Your task to perform on an android device: choose inbox layout in the gmail app Image 0: 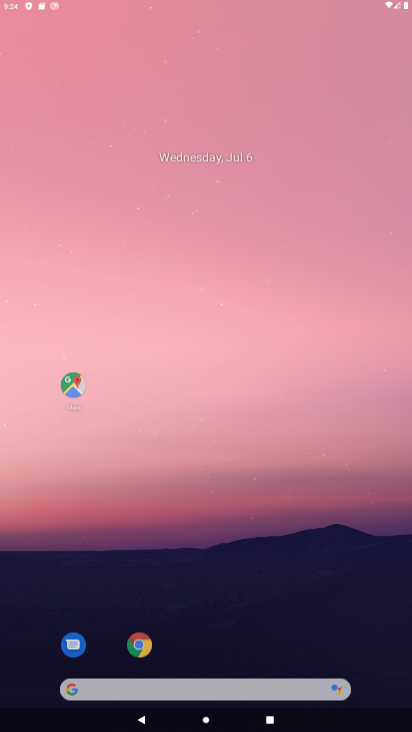
Step 0: press home button
Your task to perform on an android device: choose inbox layout in the gmail app Image 1: 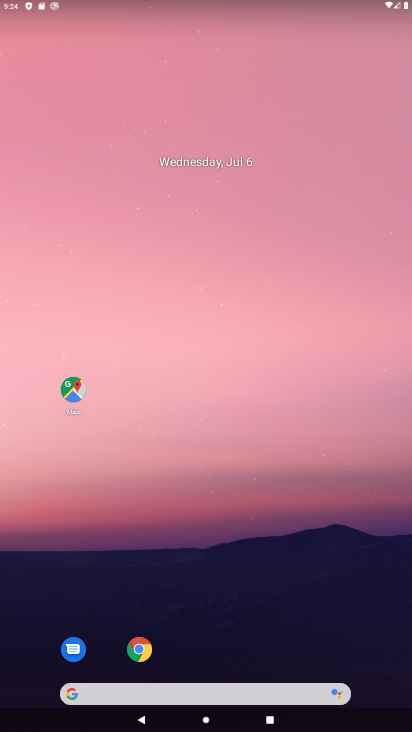
Step 1: drag from (224, 664) to (255, 60)
Your task to perform on an android device: choose inbox layout in the gmail app Image 2: 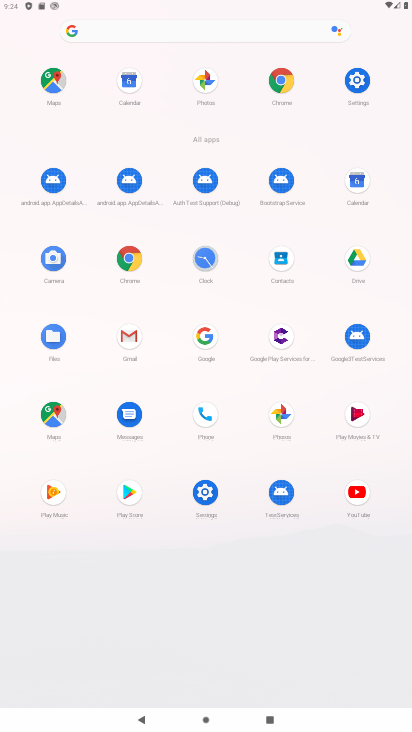
Step 2: click (124, 330)
Your task to perform on an android device: choose inbox layout in the gmail app Image 3: 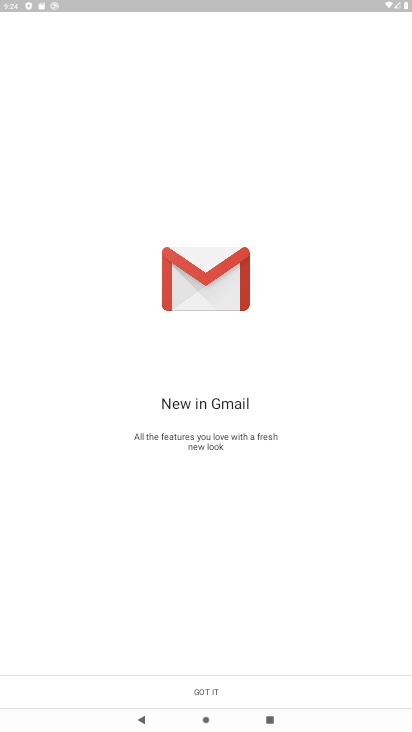
Step 3: click (206, 686)
Your task to perform on an android device: choose inbox layout in the gmail app Image 4: 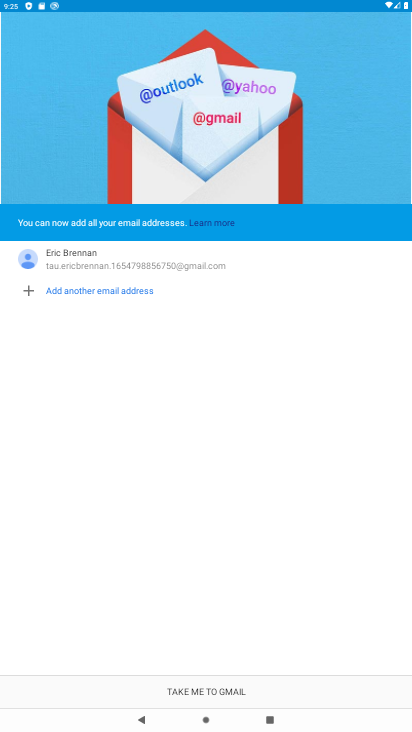
Step 4: click (204, 687)
Your task to perform on an android device: choose inbox layout in the gmail app Image 5: 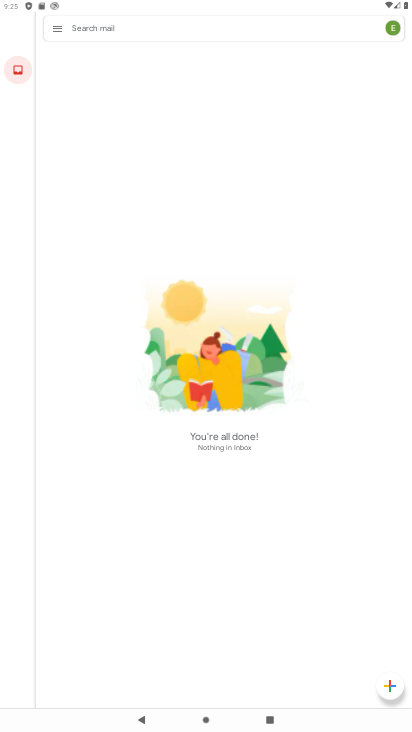
Step 5: click (56, 23)
Your task to perform on an android device: choose inbox layout in the gmail app Image 6: 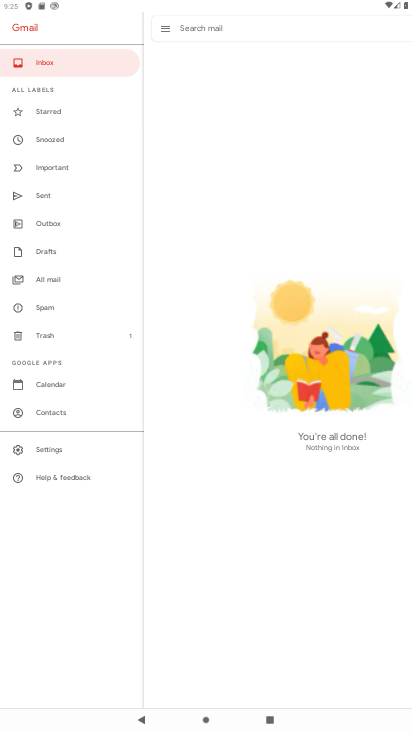
Step 6: click (69, 449)
Your task to perform on an android device: choose inbox layout in the gmail app Image 7: 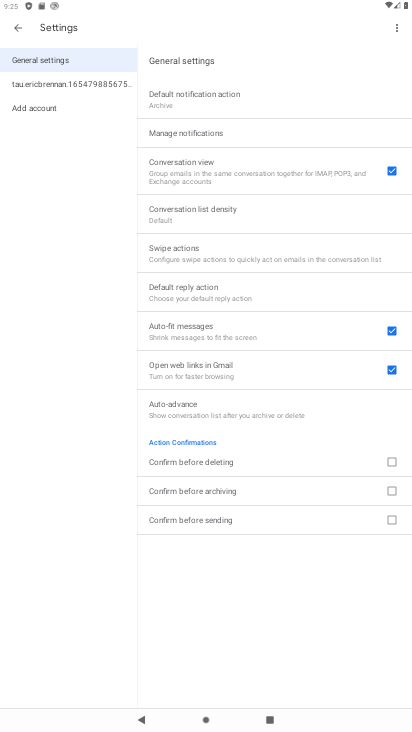
Step 7: click (73, 77)
Your task to perform on an android device: choose inbox layout in the gmail app Image 8: 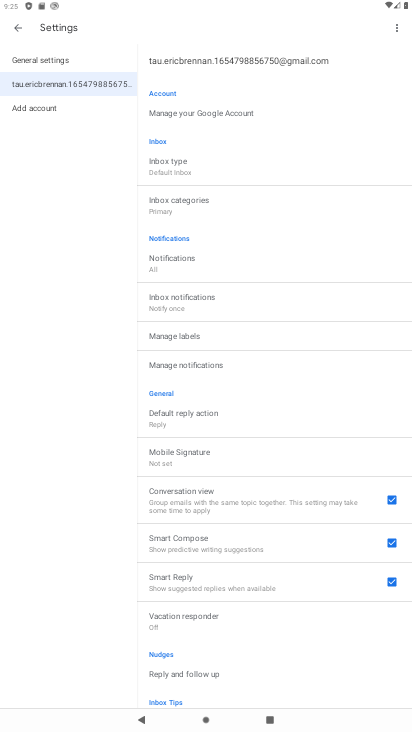
Step 8: click (201, 164)
Your task to perform on an android device: choose inbox layout in the gmail app Image 9: 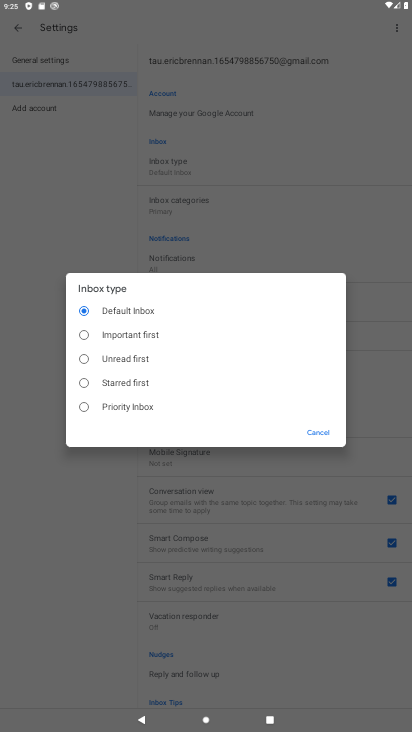
Step 9: click (82, 334)
Your task to perform on an android device: choose inbox layout in the gmail app Image 10: 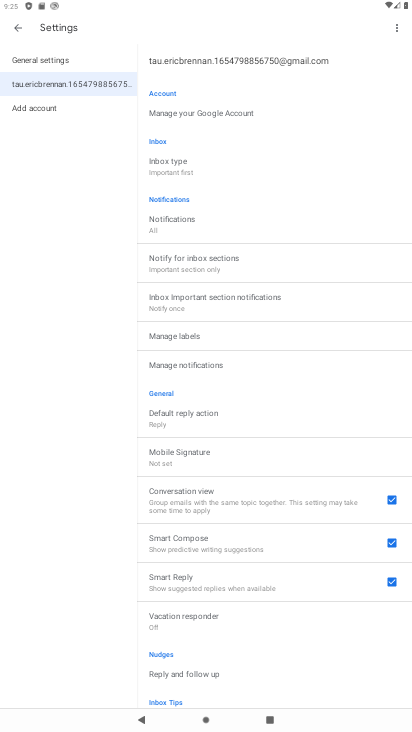
Step 10: task complete